Your task to perform on an android device: toggle show notifications on the lock screen Image 0: 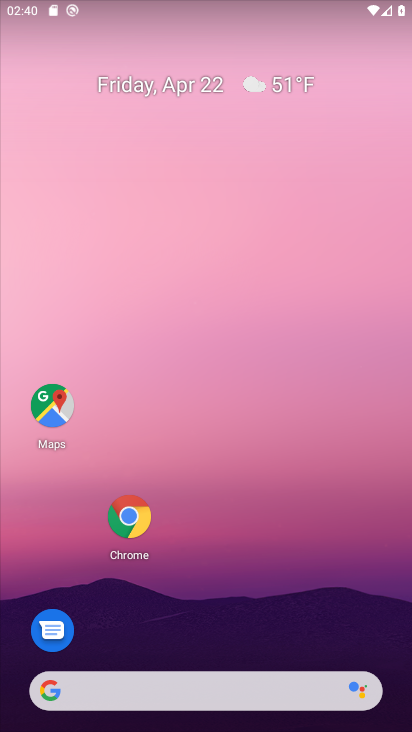
Step 0: drag from (386, 350) to (386, 270)
Your task to perform on an android device: toggle show notifications on the lock screen Image 1: 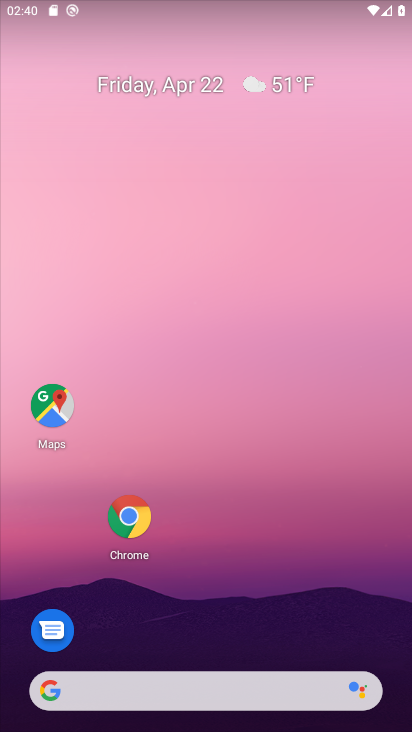
Step 1: drag from (386, 388) to (366, 198)
Your task to perform on an android device: toggle show notifications on the lock screen Image 2: 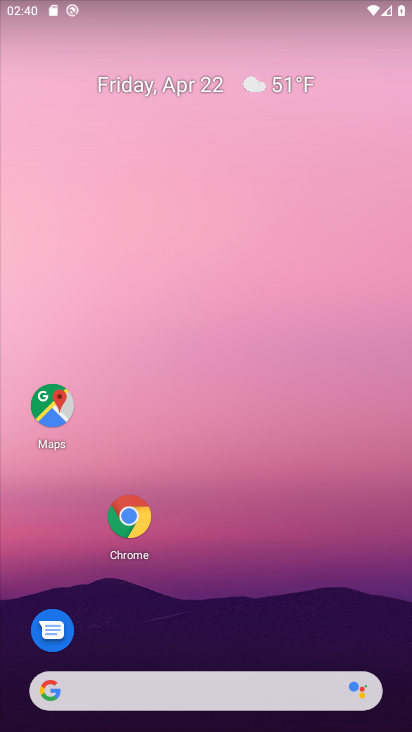
Step 2: drag from (371, 134) to (354, 63)
Your task to perform on an android device: toggle show notifications on the lock screen Image 3: 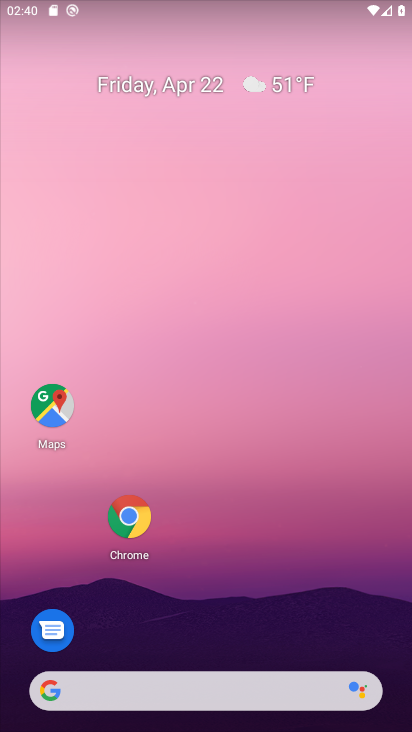
Step 3: drag from (365, 432) to (328, 48)
Your task to perform on an android device: toggle show notifications on the lock screen Image 4: 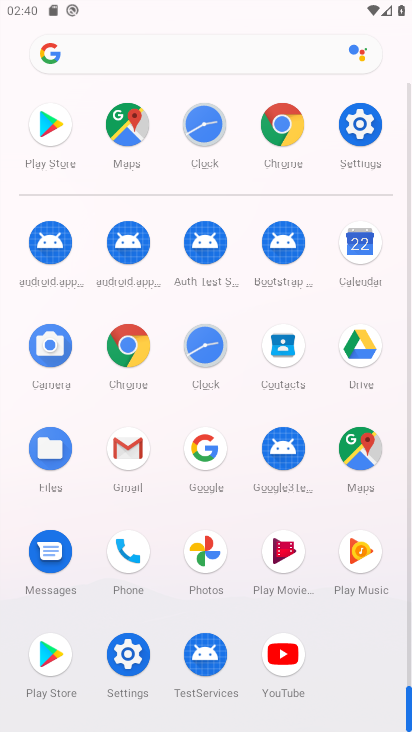
Step 4: click (353, 125)
Your task to perform on an android device: toggle show notifications on the lock screen Image 5: 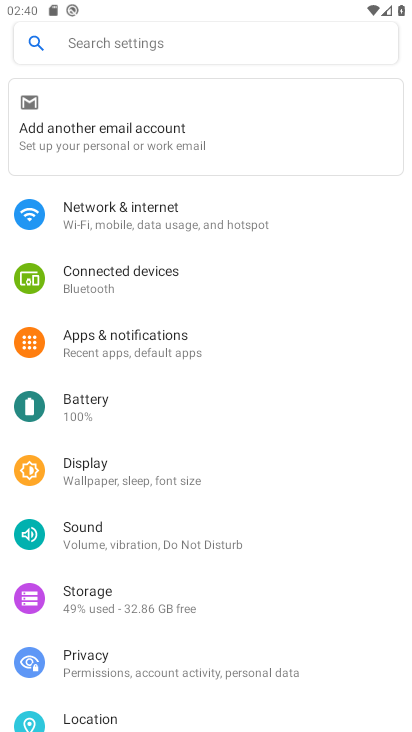
Step 5: click (97, 331)
Your task to perform on an android device: toggle show notifications on the lock screen Image 6: 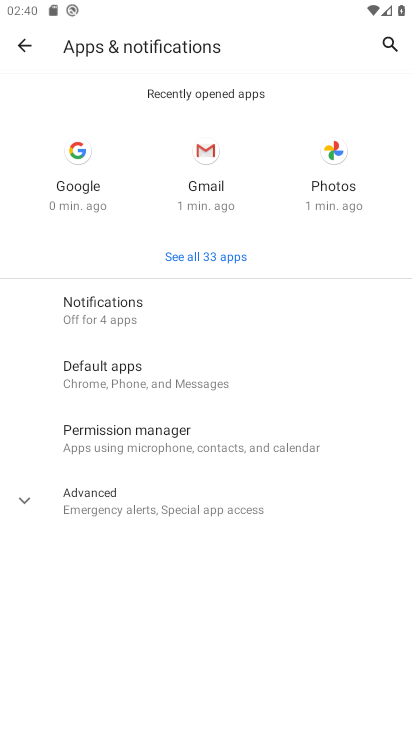
Step 6: click (89, 306)
Your task to perform on an android device: toggle show notifications on the lock screen Image 7: 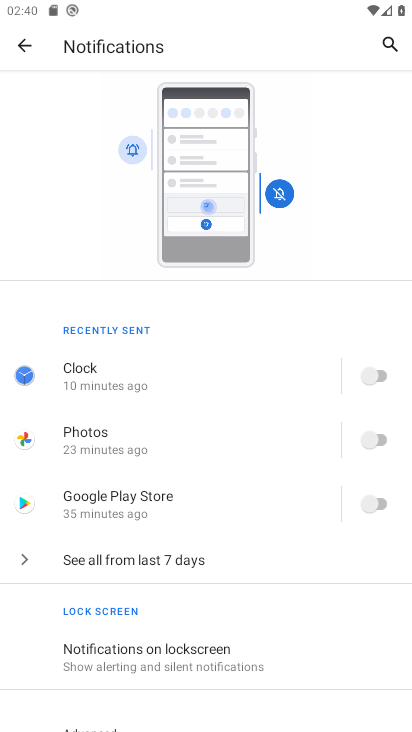
Step 7: click (189, 643)
Your task to perform on an android device: toggle show notifications on the lock screen Image 8: 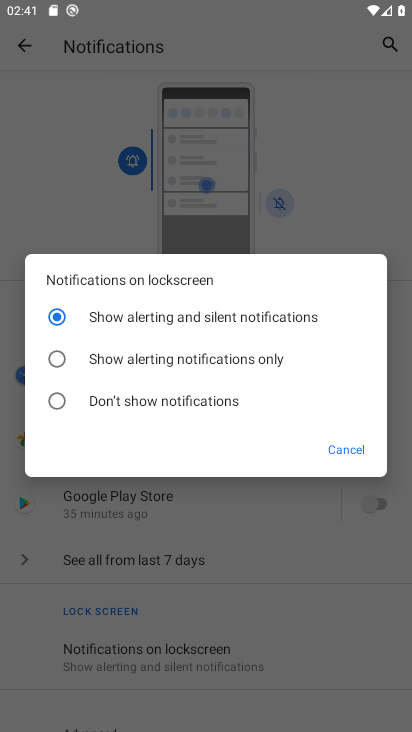
Step 8: click (51, 359)
Your task to perform on an android device: toggle show notifications on the lock screen Image 9: 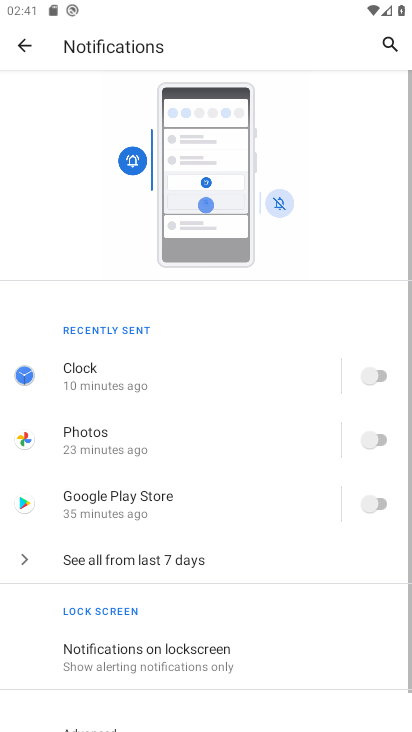
Step 9: task complete